Your task to perform on an android device: Search for seafood restaurants on Google Maps Image 0: 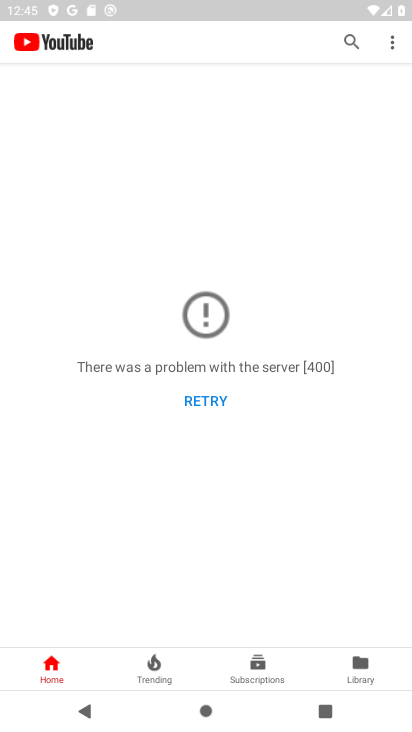
Step 0: press home button
Your task to perform on an android device: Search for seafood restaurants on Google Maps Image 1: 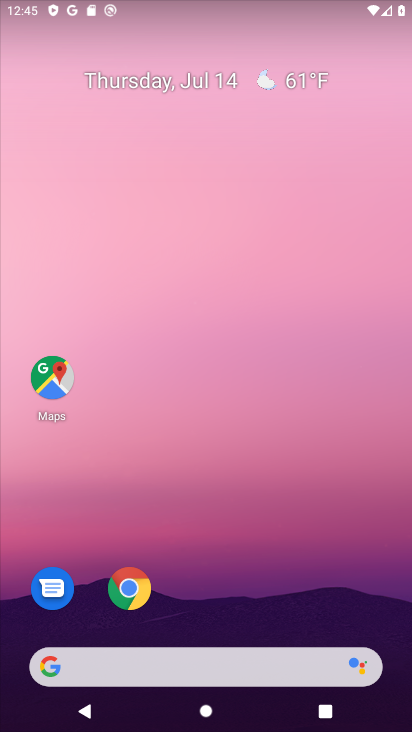
Step 1: drag from (200, 595) to (216, 23)
Your task to perform on an android device: Search for seafood restaurants on Google Maps Image 2: 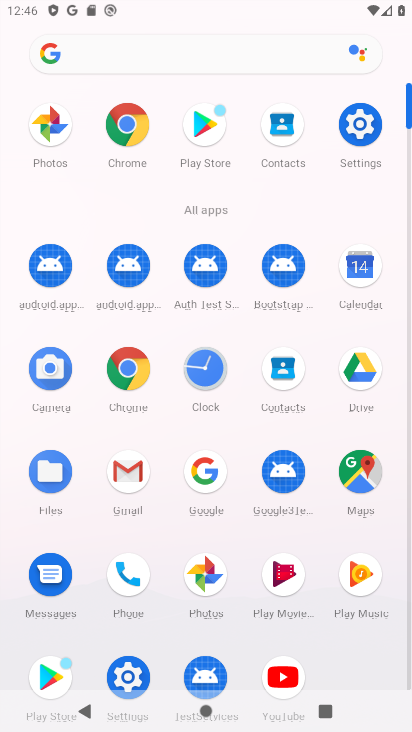
Step 2: click (353, 480)
Your task to perform on an android device: Search for seafood restaurants on Google Maps Image 3: 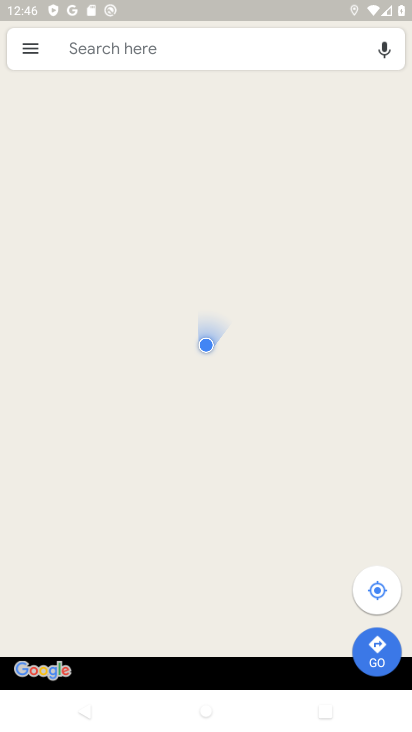
Step 3: click (249, 46)
Your task to perform on an android device: Search for seafood restaurants on Google Maps Image 4: 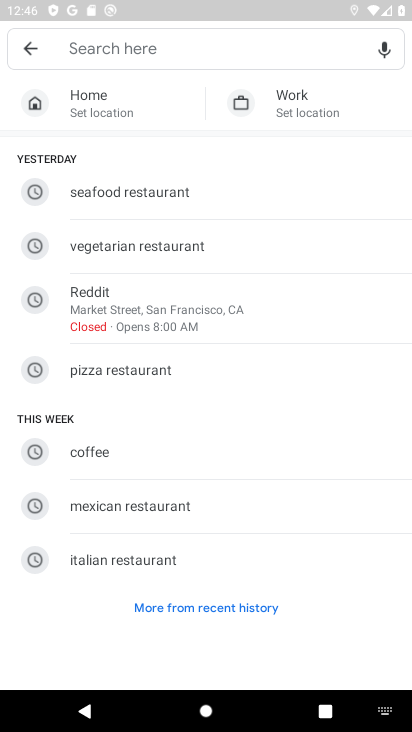
Step 4: type "seafood restaurants"
Your task to perform on an android device: Search for seafood restaurants on Google Maps Image 5: 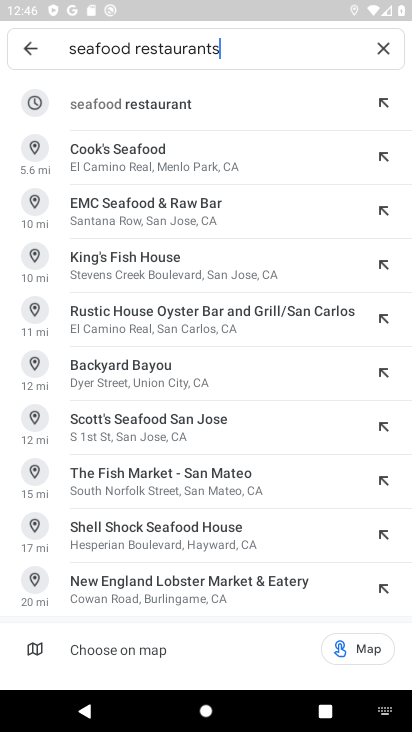
Step 5: click (175, 105)
Your task to perform on an android device: Search for seafood restaurants on Google Maps Image 6: 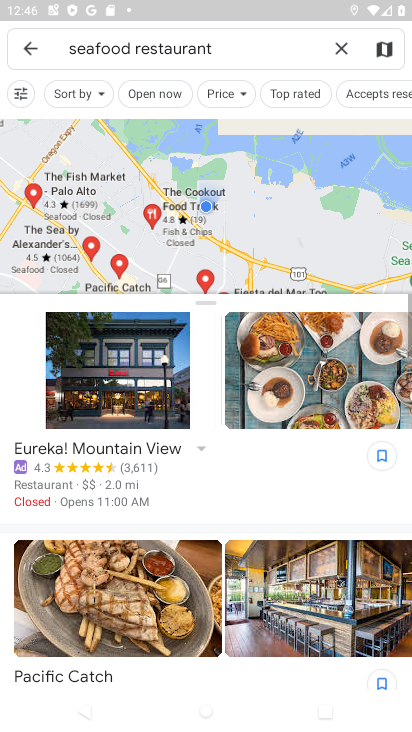
Step 6: task complete